Your task to perform on an android device: Go to CNN.com Image 0: 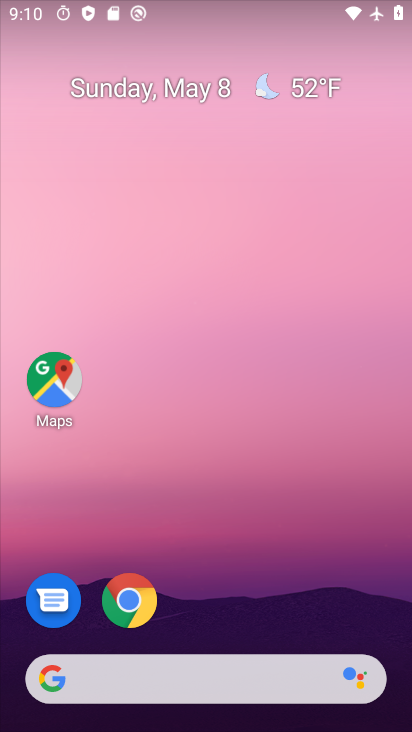
Step 0: click (151, 600)
Your task to perform on an android device: Go to CNN.com Image 1: 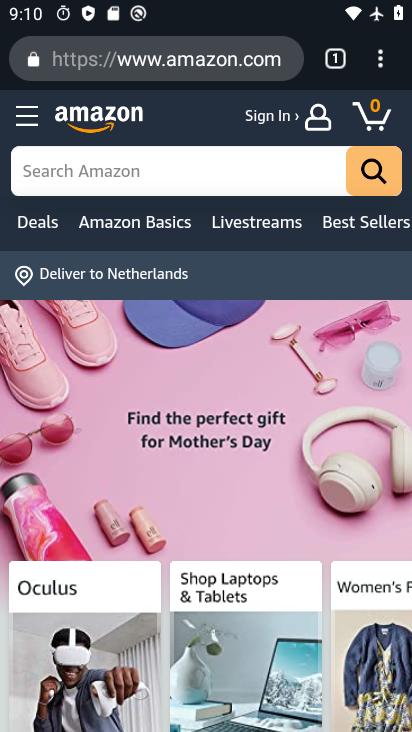
Step 1: click (200, 61)
Your task to perform on an android device: Go to CNN.com Image 2: 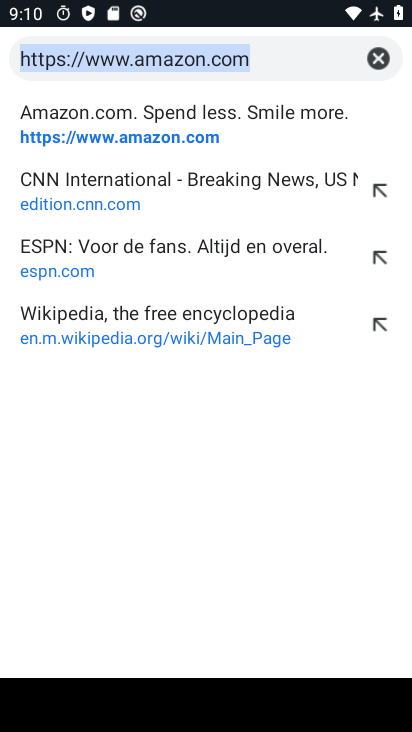
Step 2: type "CNN.com"
Your task to perform on an android device: Go to CNN.com Image 3: 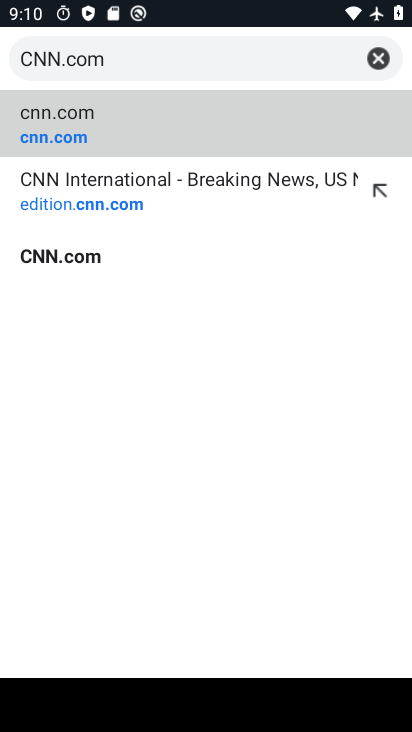
Step 3: click (88, 133)
Your task to perform on an android device: Go to CNN.com Image 4: 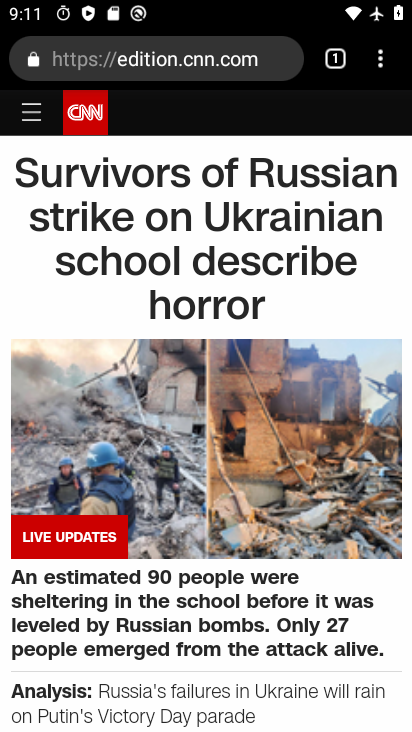
Step 4: task complete